Your task to perform on an android device: turn on priority inbox in the gmail app Image 0: 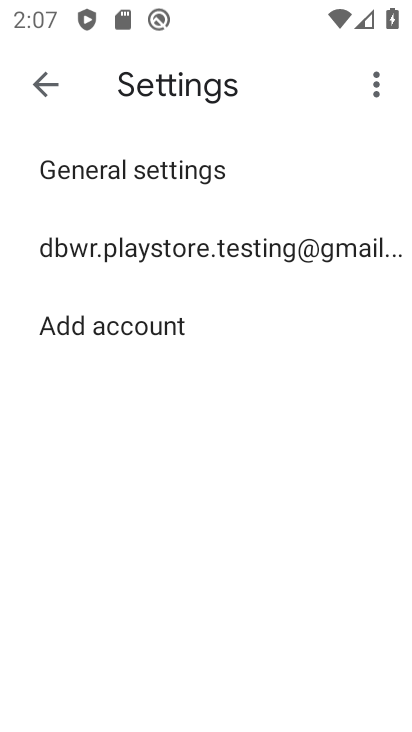
Step 0: press home button
Your task to perform on an android device: turn on priority inbox in the gmail app Image 1: 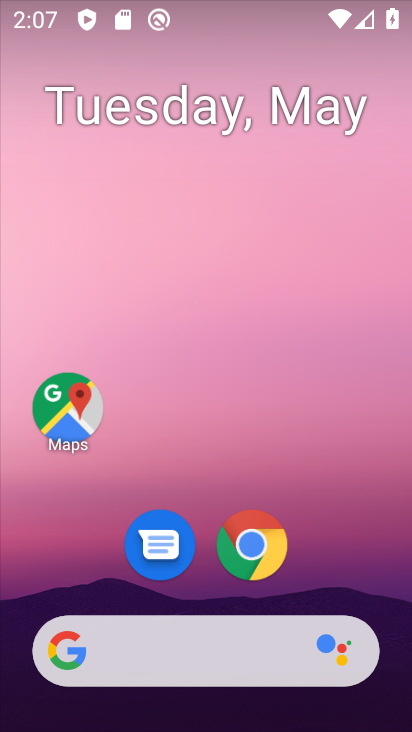
Step 1: drag from (190, 522) to (249, 88)
Your task to perform on an android device: turn on priority inbox in the gmail app Image 2: 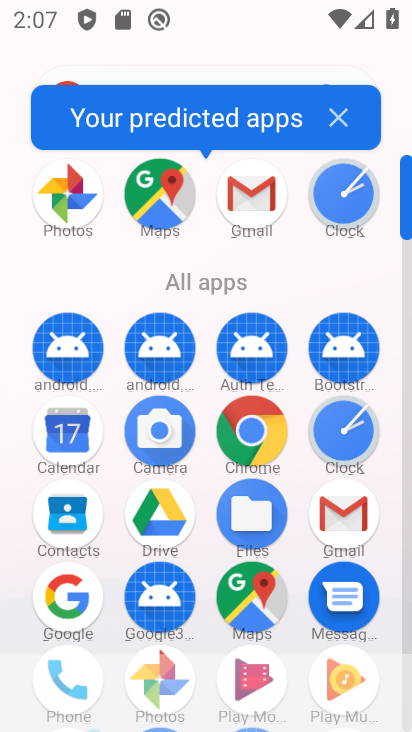
Step 2: click (248, 184)
Your task to perform on an android device: turn on priority inbox in the gmail app Image 3: 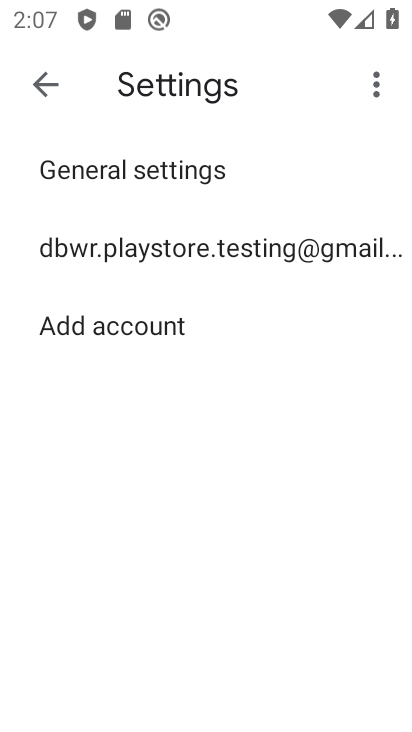
Step 3: click (185, 235)
Your task to perform on an android device: turn on priority inbox in the gmail app Image 4: 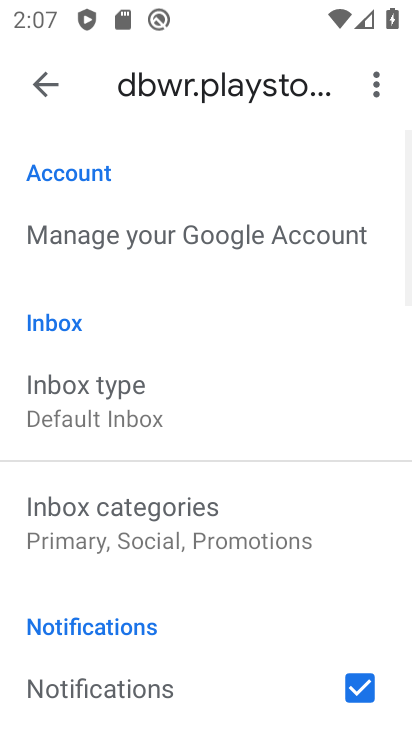
Step 4: click (123, 425)
Your task to perform on an android device: turn on priority inbox in the gmail app Image 5: 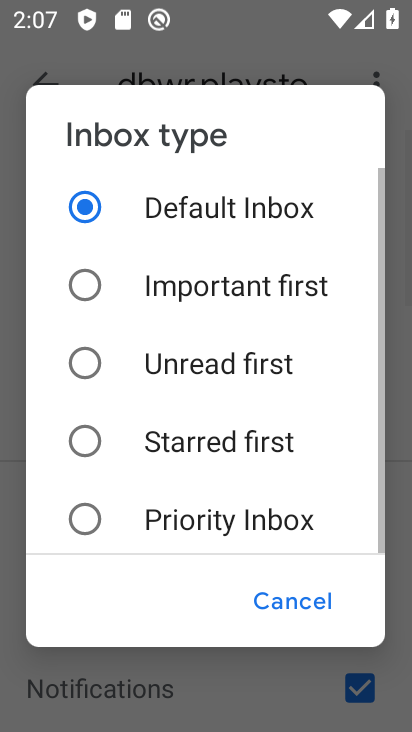
Step 5: click (68, 536)
Your task to perform on an android device: turn on priority inbox in the gmail app Image 6: 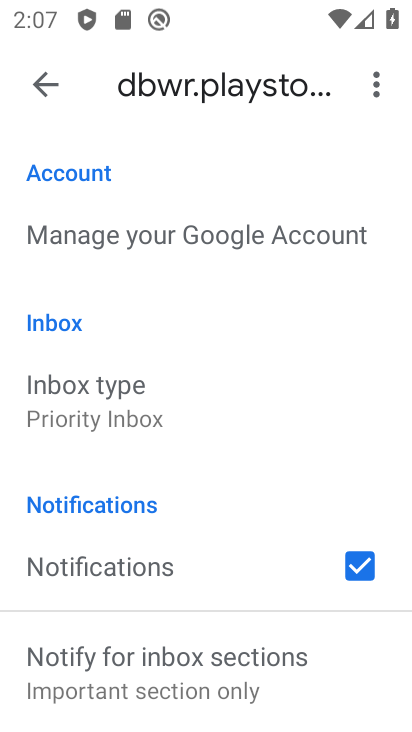
Step 6: task complete